Your task to perform on an android device: Go to Yahoo.com Image 0: 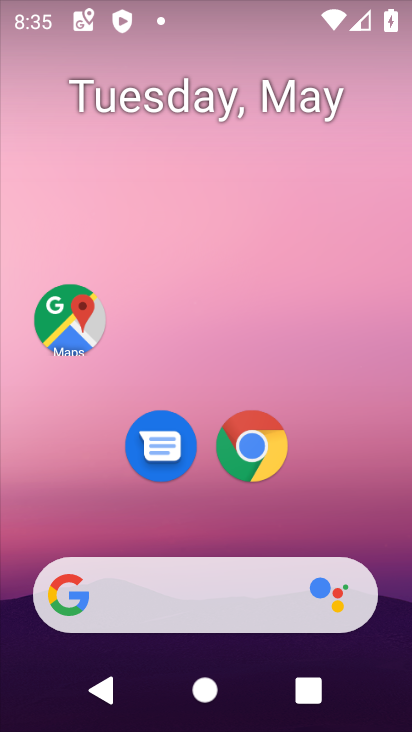
Step 0: click (256, 450)
Your task to perform on an android device: Go to Yahoo.com Image 1: 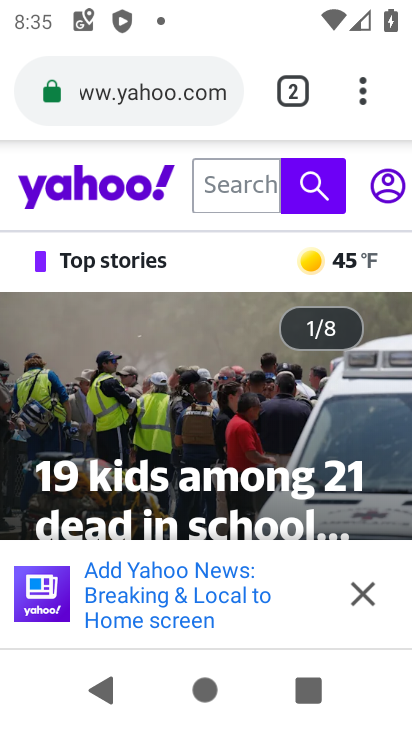
Step 1: task complete